Your task to perform on an android device: Go to Wikipedia Image 0: 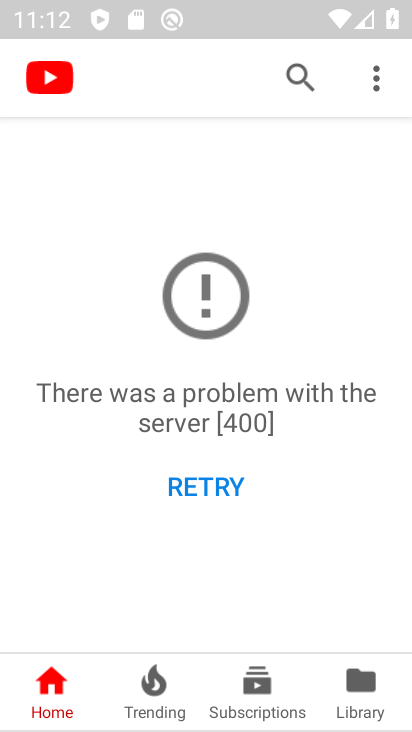
Step 0: press home button
Your task to perform on an android device: Go to Wikipedia Image 1: 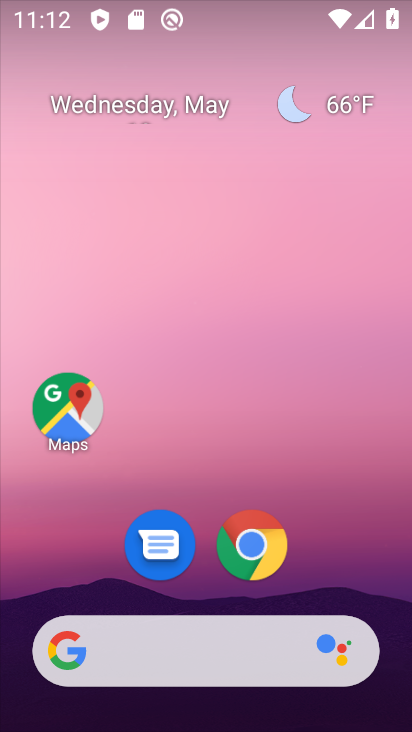
Step 1: click (193, 660)
Your task to perform on an android device: Go to Wikipedia Image 2: 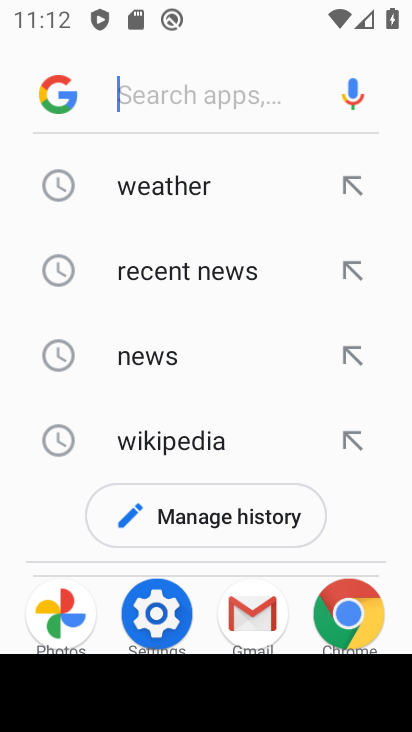
Step 2: click (186, 438)
Your task to perform on an android device: Go to Wikipedia Image 3: 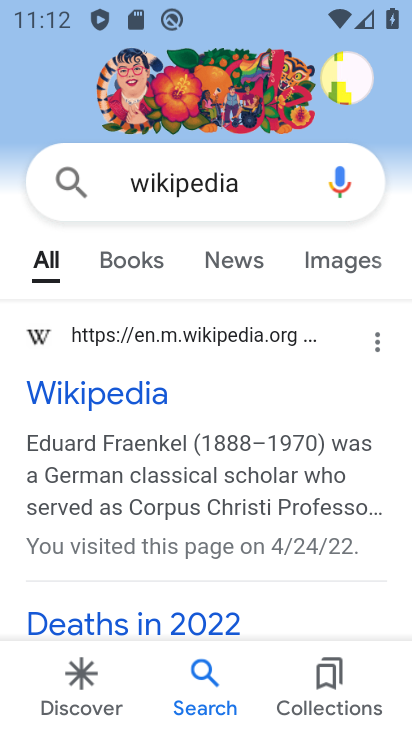
Step 3: click (196, 307)
Your task to perform on an android device: Go to Wikipedia Image 4: 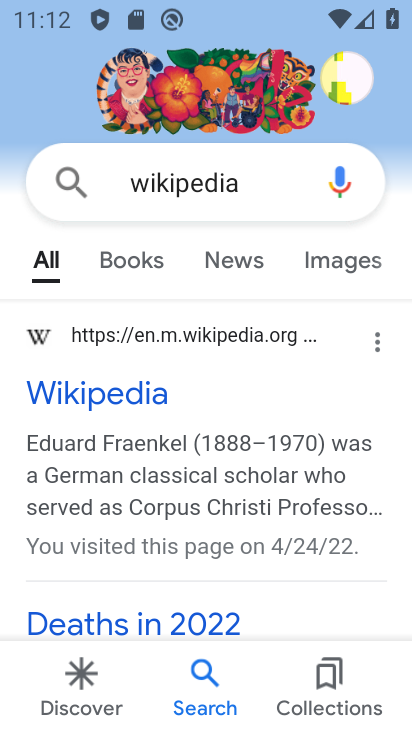
Step 4: click (205, 328)
Your task to perform on an android device: Go to Wikipedia Image 5: 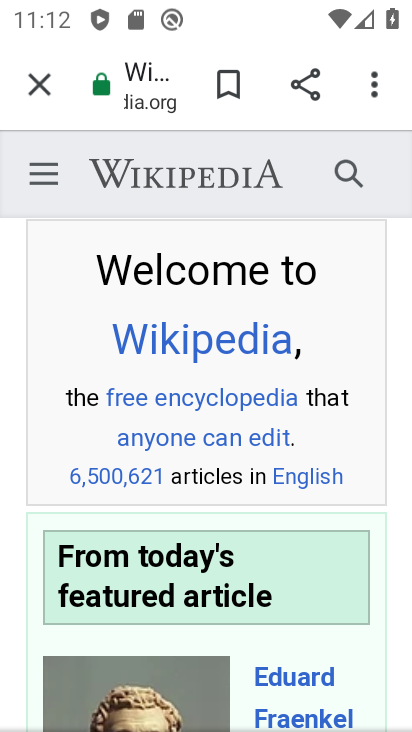
Step 5: task complete